Your task to perform on an android device: snooze an email in the gmail app Image 0: 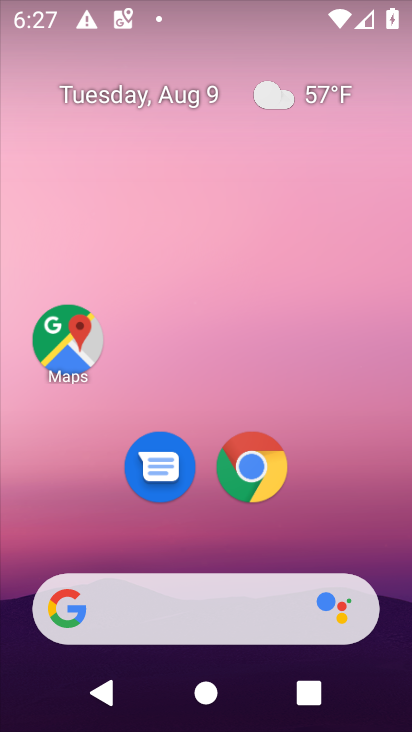
Step 0: drag from (189, 452) to (204, 124)
Your task to perform on an android device: snooze an email in the gmail app Image 1: 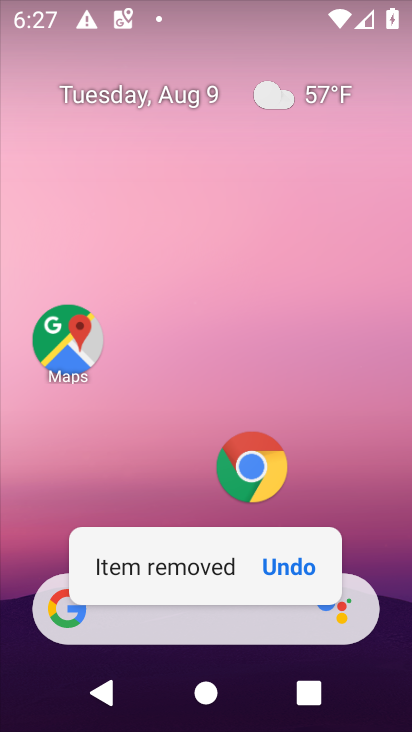
Step 1: click (286, 565)
Your task to perform on an android device: snooze an email in the gmail app Image 2: 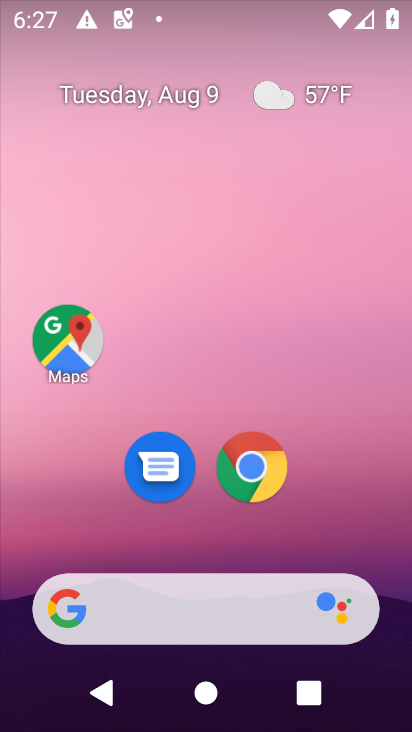
Step 2: drag from (220, 501) to (237, 65)
Your task to perform on an android device: snooze an email in the gmail app Image 3: 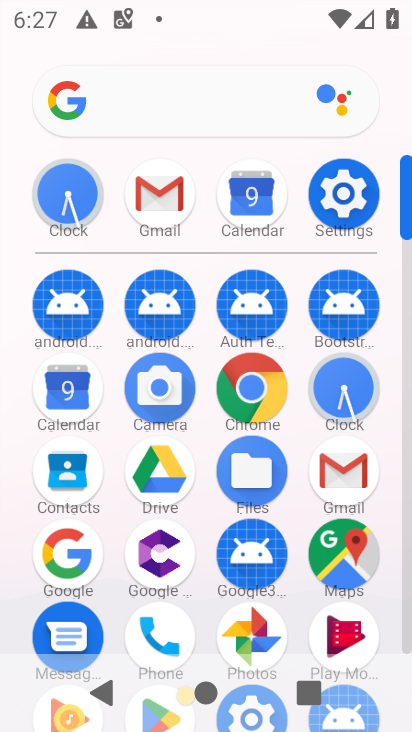
Step 3: click (156, 206)
Your task to perform on an android device: snooze an email in the gmail app Image 4: 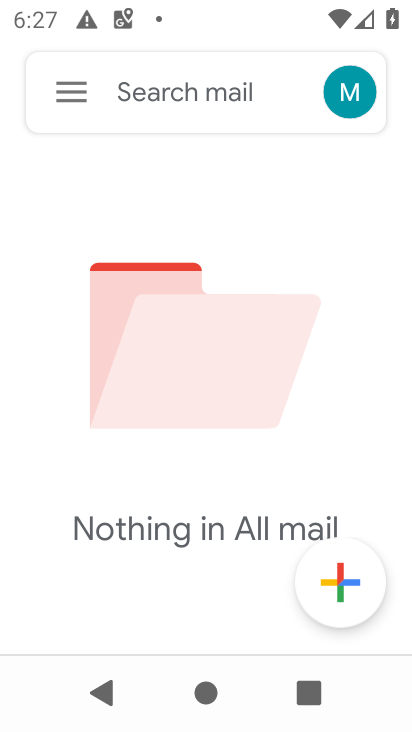
Step 4: task complete